Your task to perform on an android device: Search for lenovo thinkpad on bestbuy, select the first entry, add it to the cart, then select checkout. Image 0: 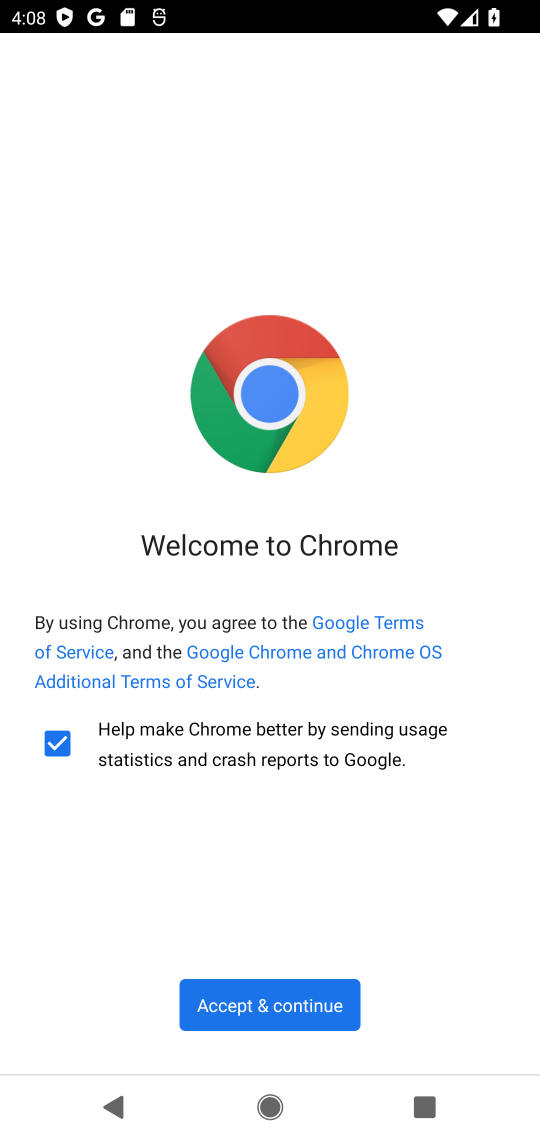
Step 0: click (251, 1008)
Your task to perform on an android device: Search for lenovo thinkpad on bestbuy, select the first entry, add it to the cart, then select checkout. Image 1: 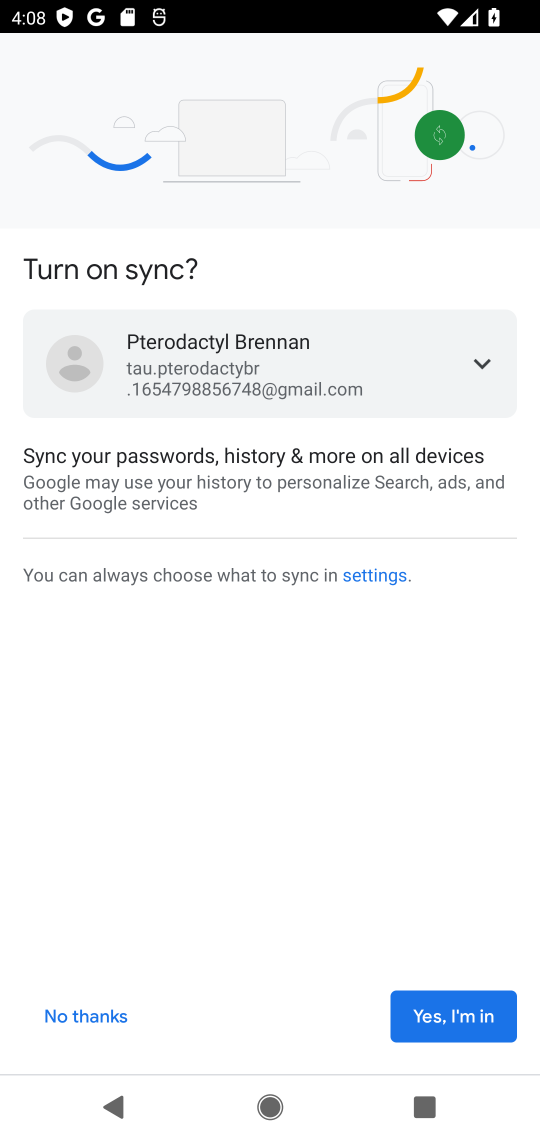
Step 1: click (455, 1010)
Your task to perform on an android device: Search for lenovo thinkpad on bestbuy, select the first entry, add it to the cart, then select checkout. Image 2: 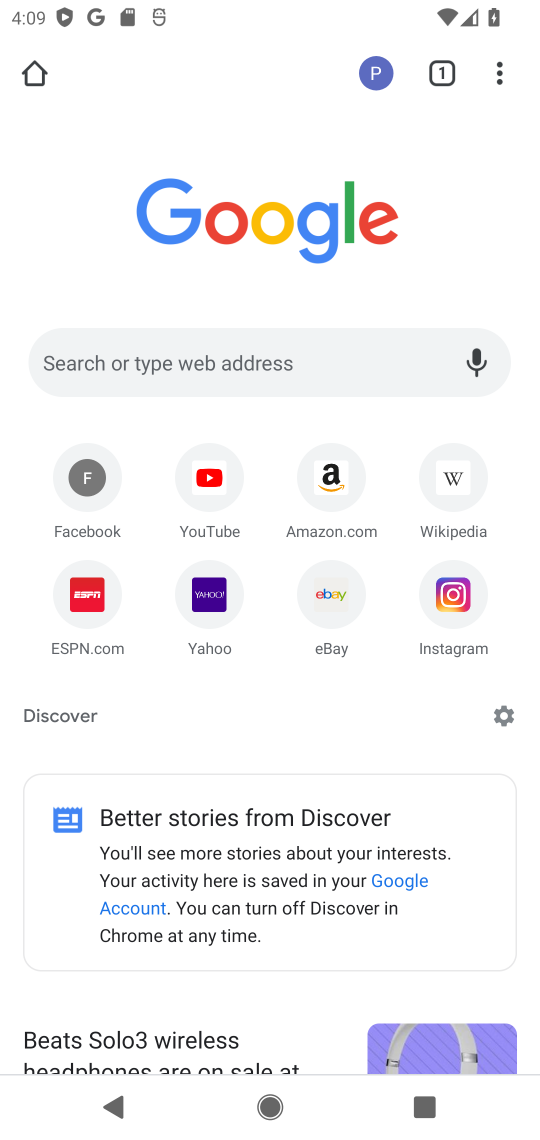
Step 2: click (273, 366)
Your task to perform on an android device: Search for lenovo thinkpad on bestbuy, select the first entry, add it to the cart, then select checkout. Image 3: 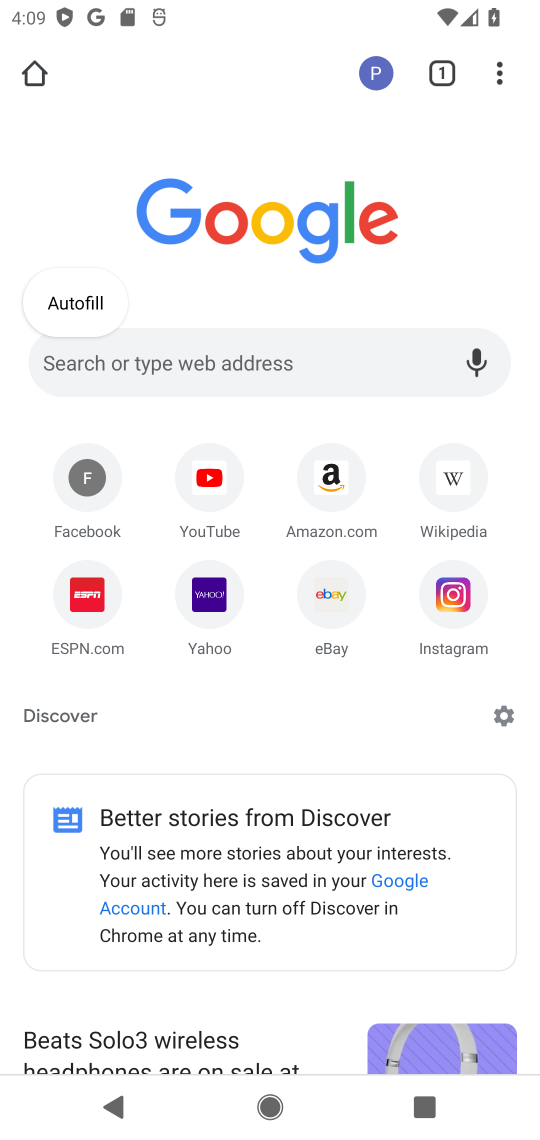
Step 3: click (158, 345)
Your task to perform on an android device: Search for lenovo thinkpad on bestbuy, select the first entry, add it to the cart, then select checkout. Image 4: 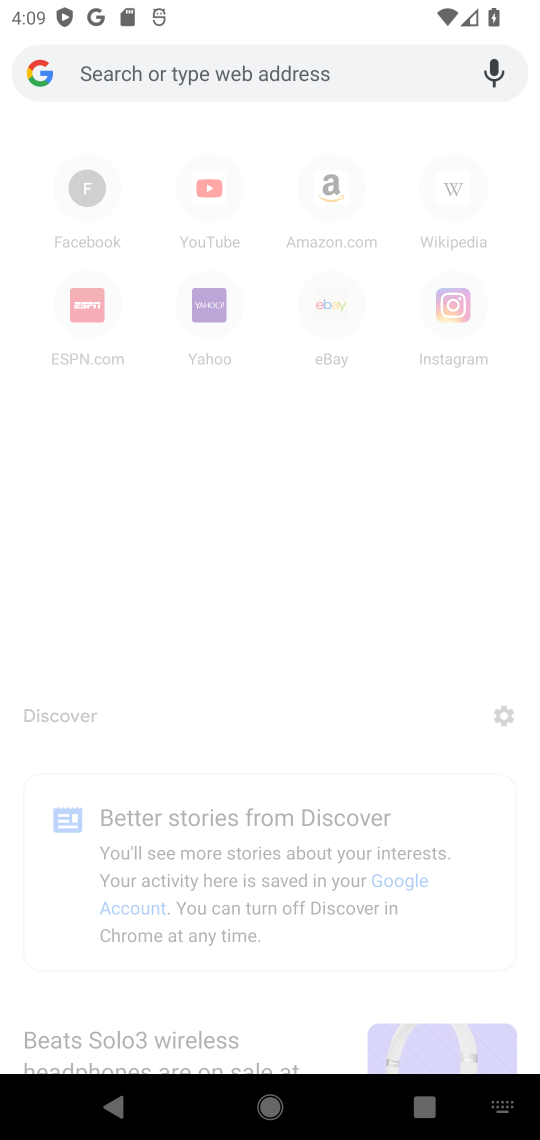
Step 4: type "bestbuy"
Your task to perform on an android device: Search for lenovo thinkpad on bestbuy, select the first entry, add it to the cart, then select checkout. Image 5: 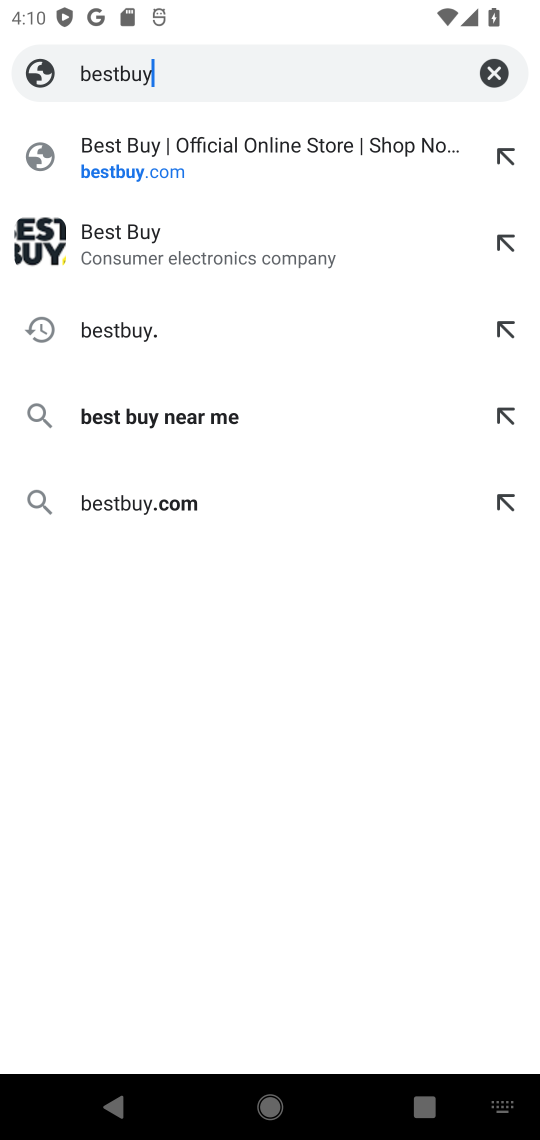
Step 5: click (145, 168)
Your task to perform on an android device: Search for lenovo thinkpad on bestbuy, select the first entry, add it to the cart, then select checkout. Image 6: 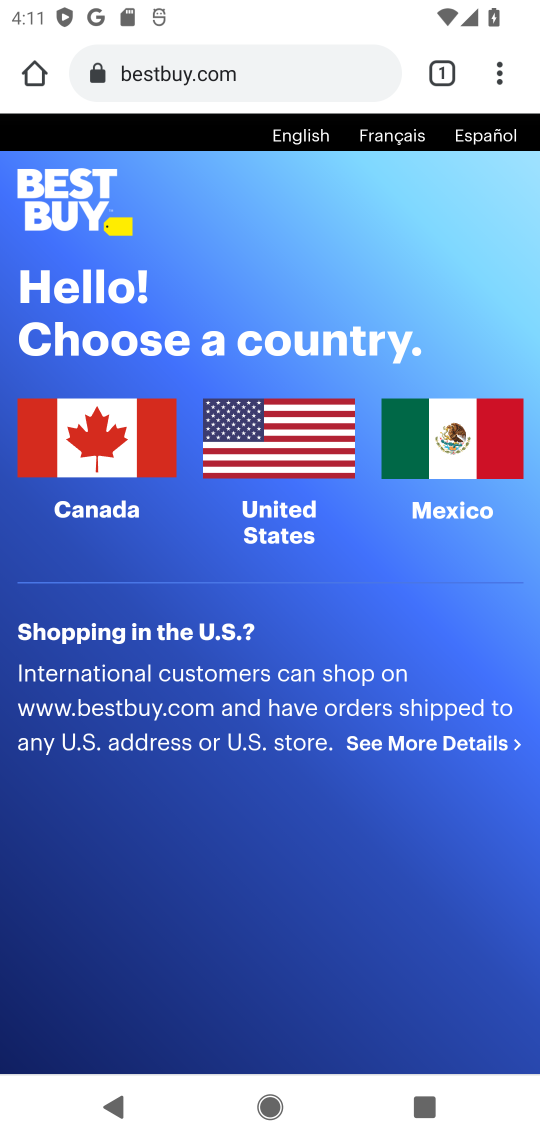
Step 6: task complete